Your task to perform on an android device: Do I have any events tomorrow? Image 0: 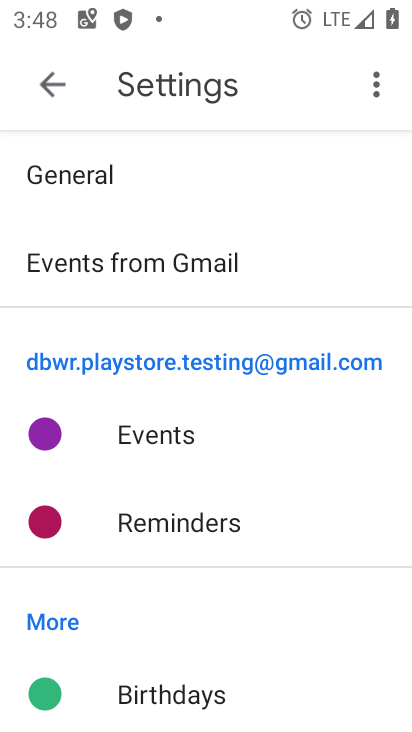
Step 0: press home button
Your task to perform on an android device: Do I have any events tomorrow? Image 1: 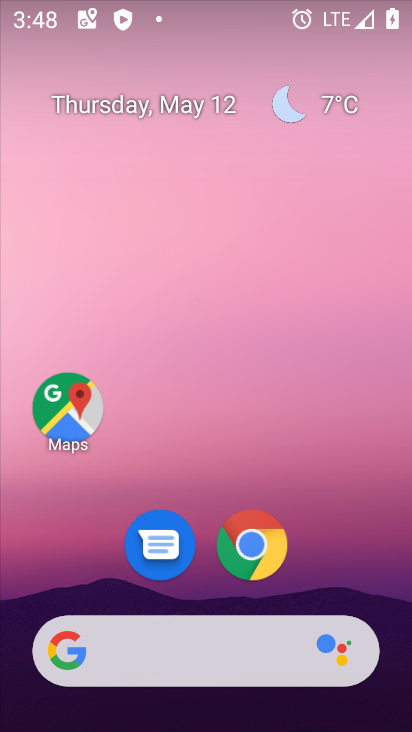
Step 1: drag from (391, 658) to (323, 203)
Your task to perform on an android device: Do I have any events tomorrow? Image 2: 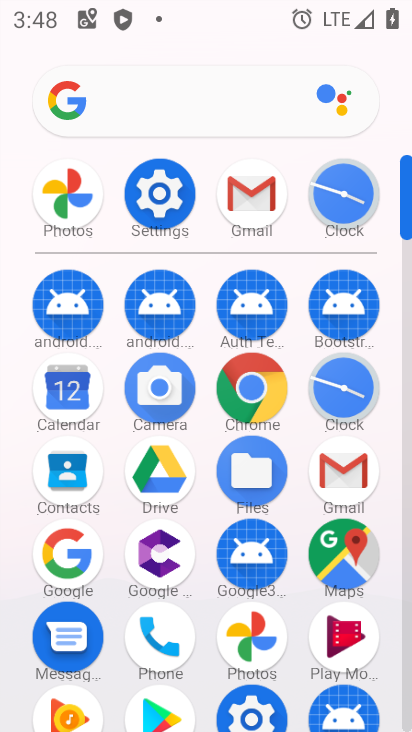
Step 2: click (58, 387)
Your task to perform on an android device: Do I have any events tomorrow? Image 3: 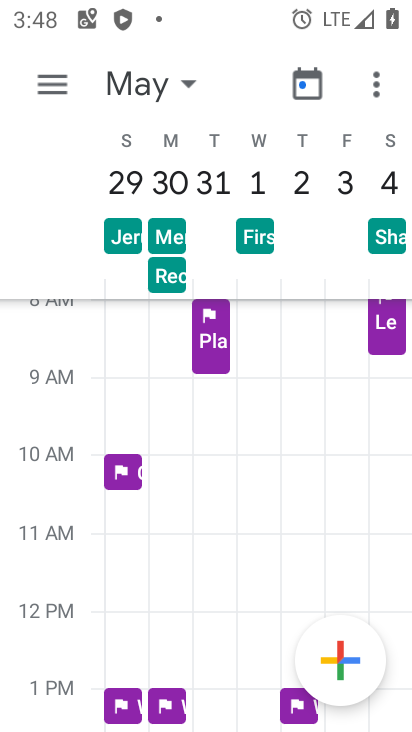
Step 3: click (55, 85)
Your task to perform on an android device: Do I have any events tomorrow? Image 4: 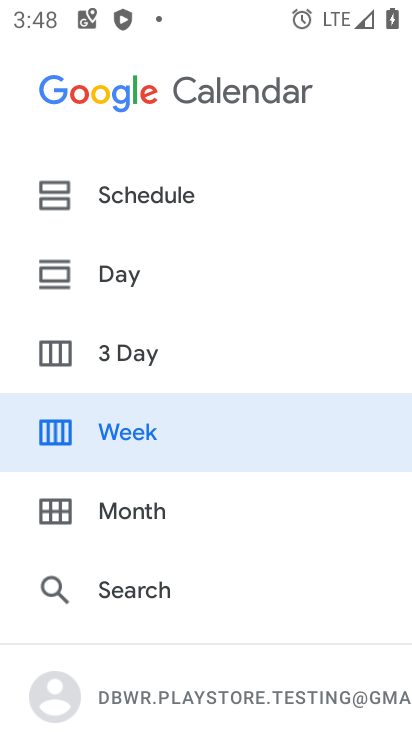
Step 4: click (117, 266)
Your task to perform on an android device: Do I have any events tomorrow? Image 5: 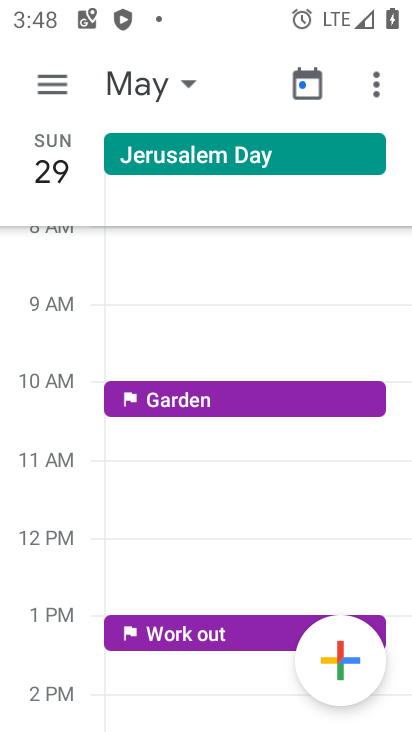
Step 5: click (193, 88)
Your task to perform on an android device: Do I have any events tomorrow? Image 6: 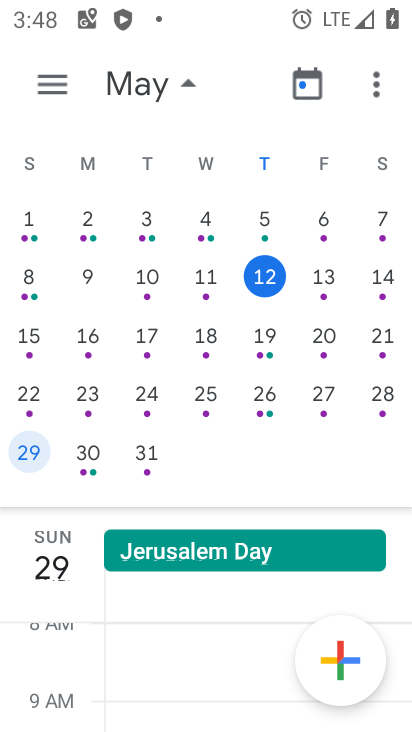
Step 6: click (324, 269)
Your task to perform on an android device: Do I have any events tomorrow? Image 7: 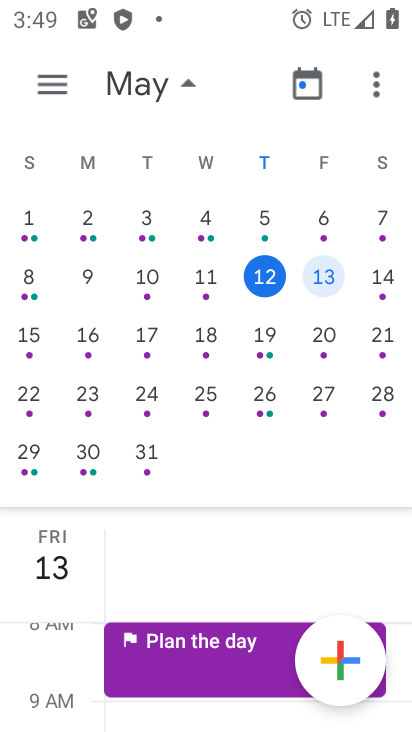
Step 7: task complete